Your task to perform on an android device: Open Google Chrome and click the shortcut for Amazon.com Image 0: 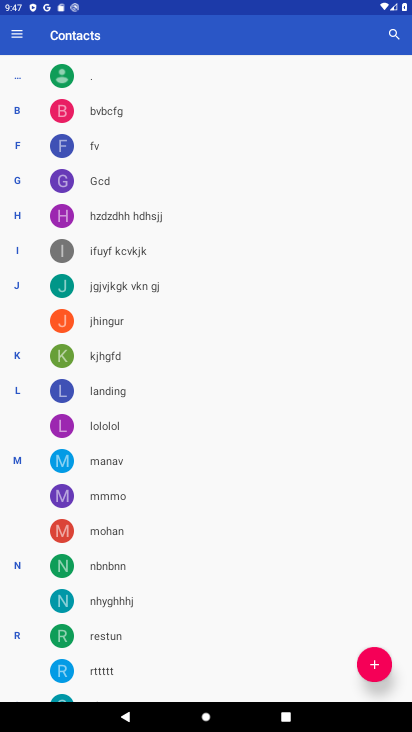
Step 0: press home button
Your task to perform on an android device: Open Google Chrome and click the shortcut for Amazon.com Image 1: 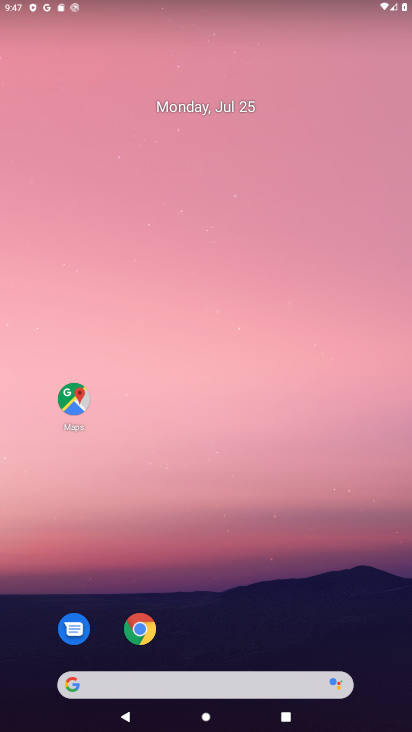
Step 1: click (137, 608)
Your task to perform on an android device: Open Google Chrome and click the shortcut for Amazon.com Image 2: 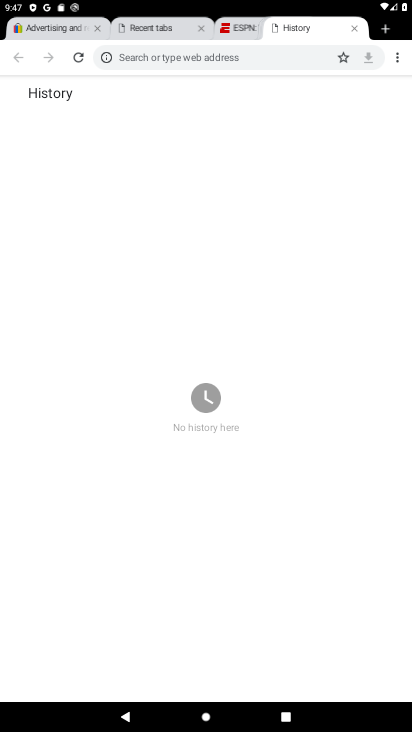
Step 2: click (381, 28)
Your task to perform on an android device: Open Google Chrome and click the shortcut for Amazon.com Image 3: 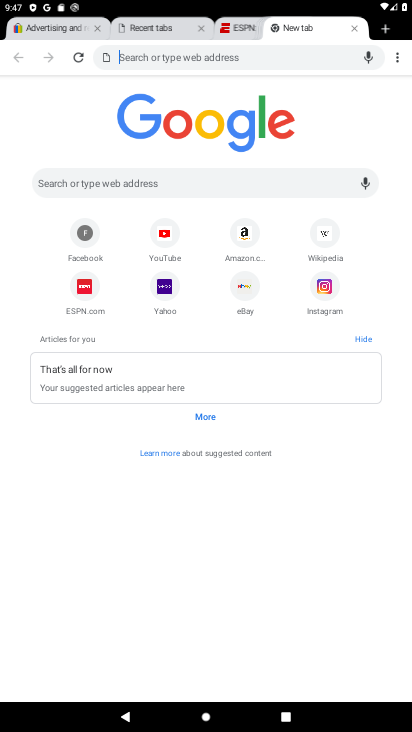
Step 3: click (254, 238)
Your task to perform on an android device: Open Google Chrome and click the shortcut for Amazon.com Image 4: 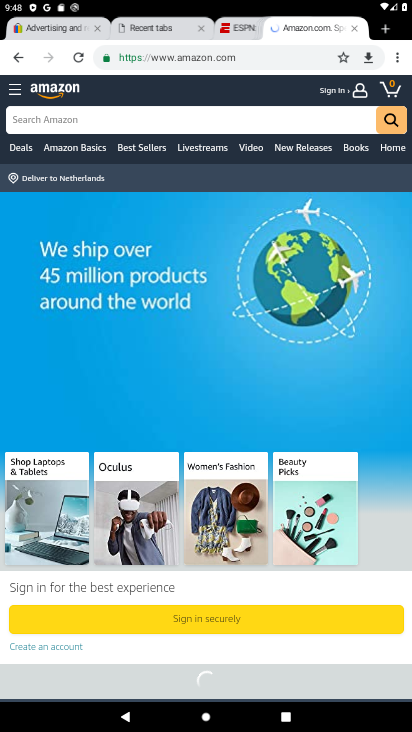
Step 4: task complete